Your task to perform on an android device: toggle location history Image 0: 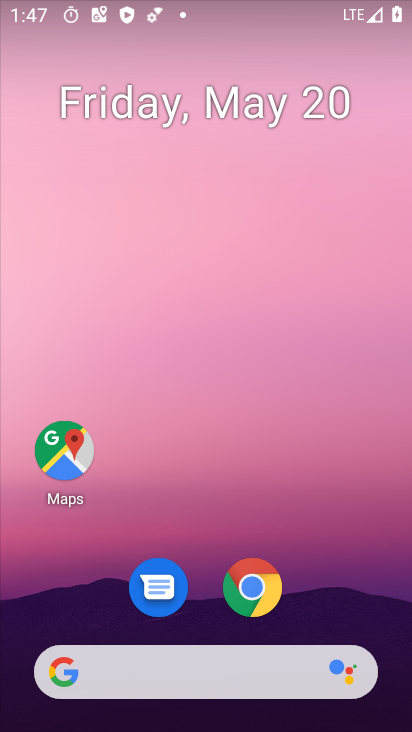
Step 0: drag from (360, 553) to (297, 99)
Your task to perform on an android device: toggle location history Image 1: 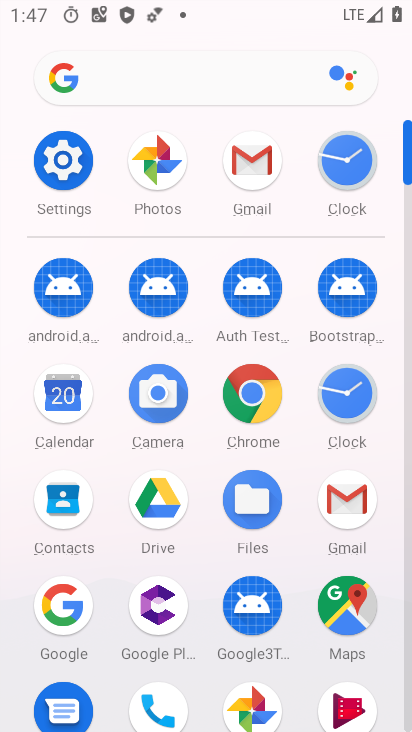
Step 1: click (72, 166)
Your task to perform on an android device: toggle location history Image 2: 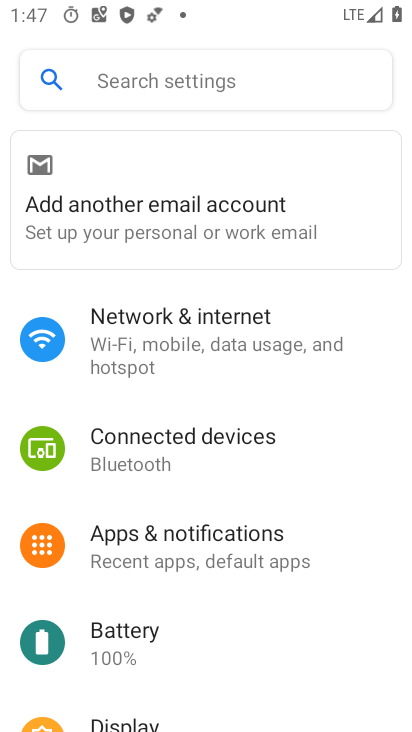
Step 2: drag from (143, 615) to (228, 211)
Your task to perform on an android device: toggle location history Image 3: 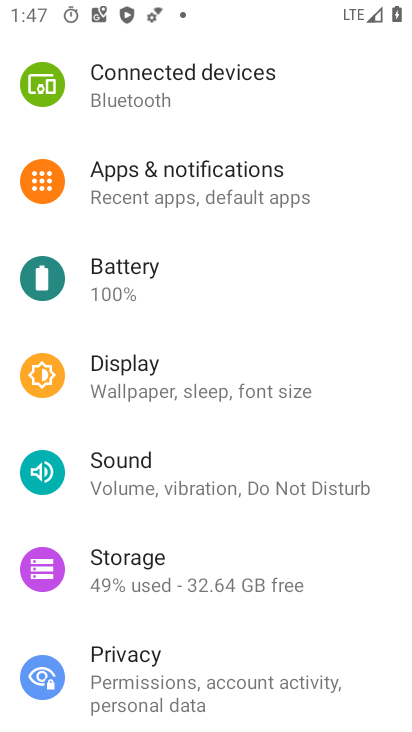
Step 3: drag from (206, 551) to (301, 152)
Your task to perform on an android device: toggle location history Image 4: 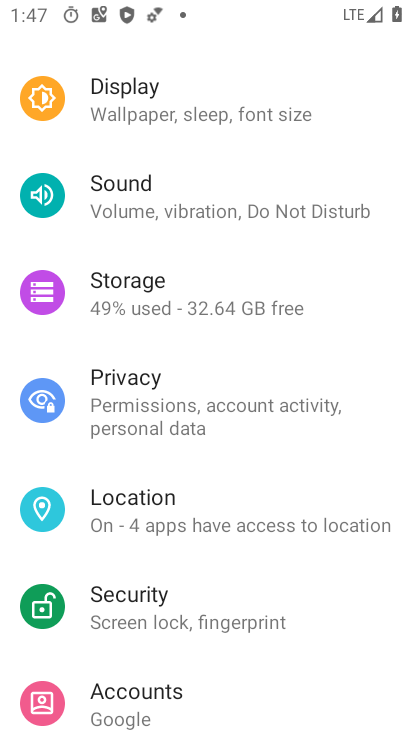
Step 4: click (156, 507)
Your task to perform on an android device: toggle location history Image 5: 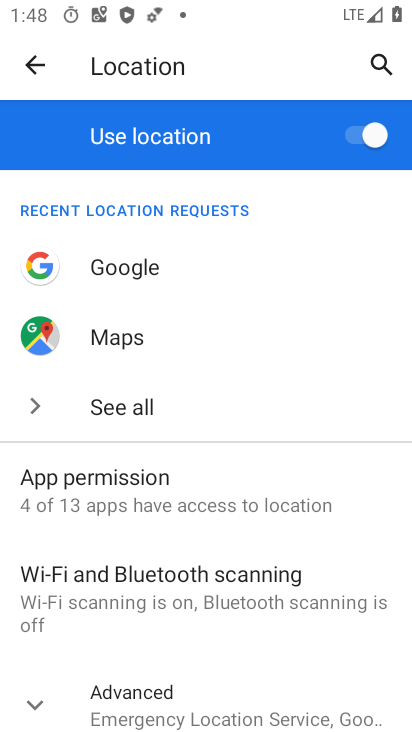
Step 5: drag from (142, 417) to (237, 39)
Your task to perform on an android device: toggle location history Image 6: 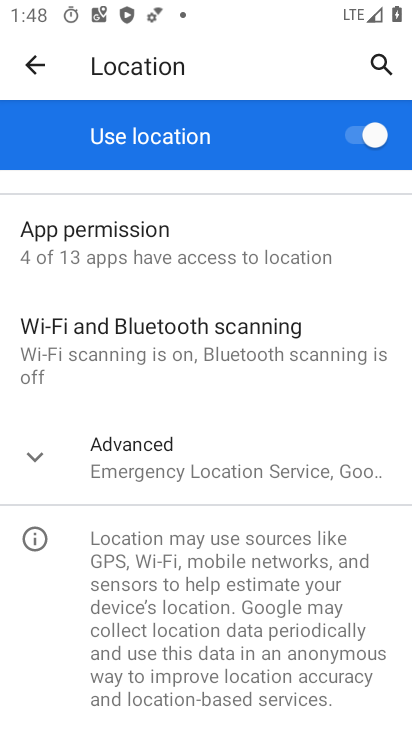
Step 6: click (169, 518)
Your task to perform on an android device: toggle location history Image 7: 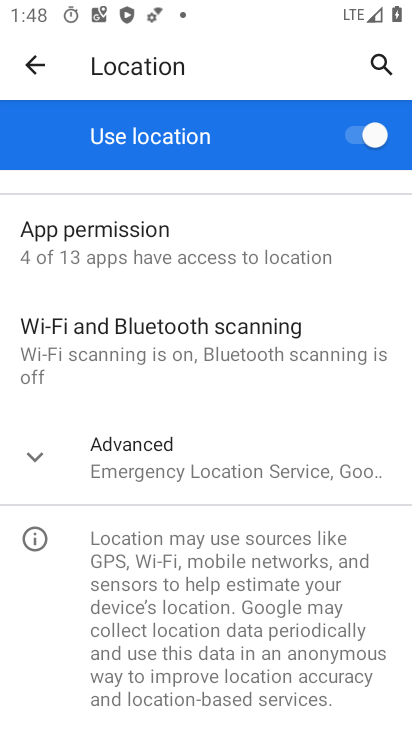
Step 7: click (147, 473)
Your task to perform on an android device: toggle location history Image 8: 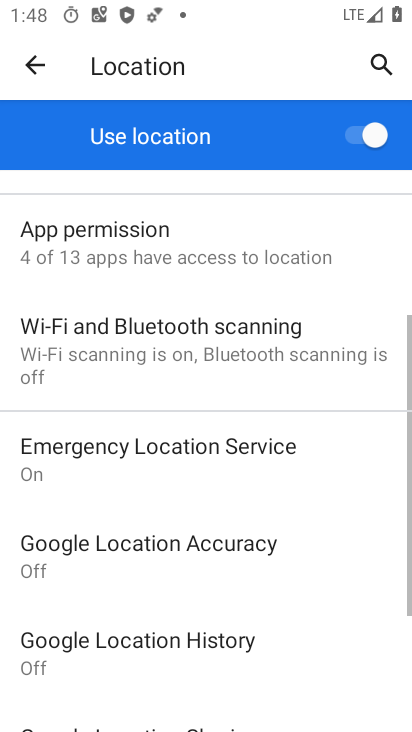
Step 8: drag from (175, 555) to (189, 261)
Your task to perform on an android device: toggle location history Image 9: 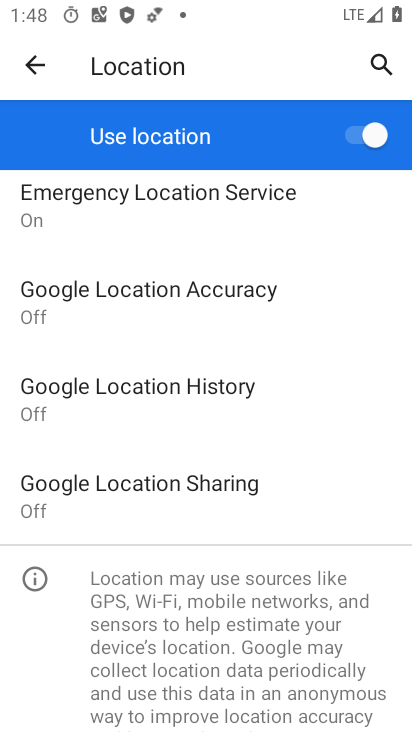
Step 9: click (188, 376)
Your task to perform on an android device: toggle location history Image 10: 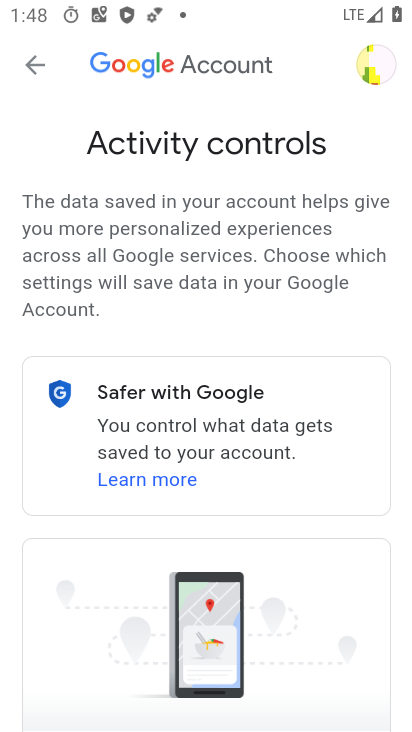
Step 10: drag from (83, 492) to (234, 53)
Your task to perform on an android device: toggle location history Image 11: 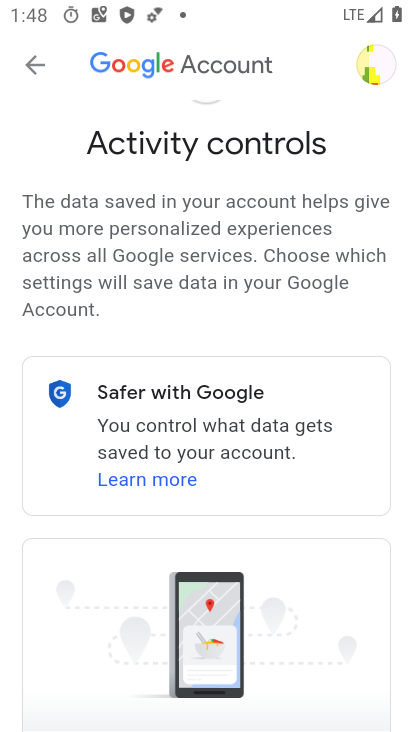
Step 11: drag from (291, 608) to (240, 127)
Your task to perform on an android device: toggle location history Image 12: 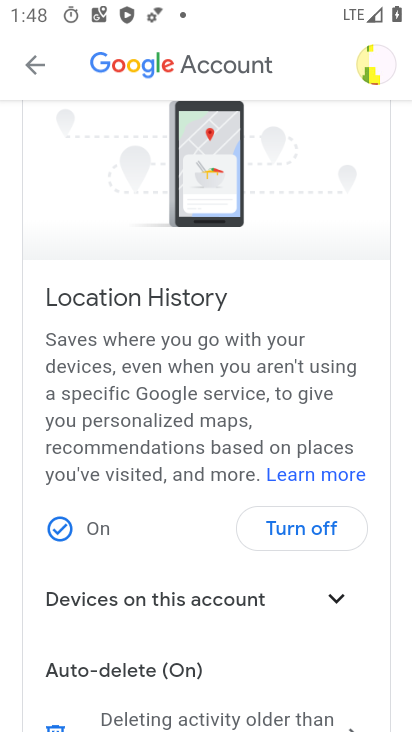
Step 12: click (304, 527)
Your task to perform on an android device: toggle location history Image 13: 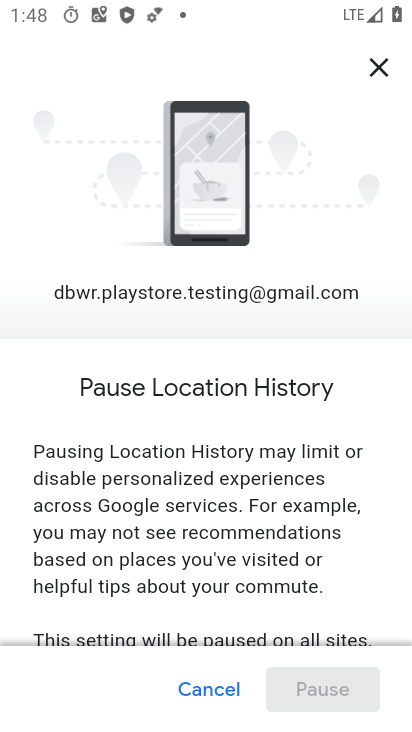
Step 13: drag from (268, 549) to (364, 86)
Your task to perform on an android device: toggle location history Image 14: 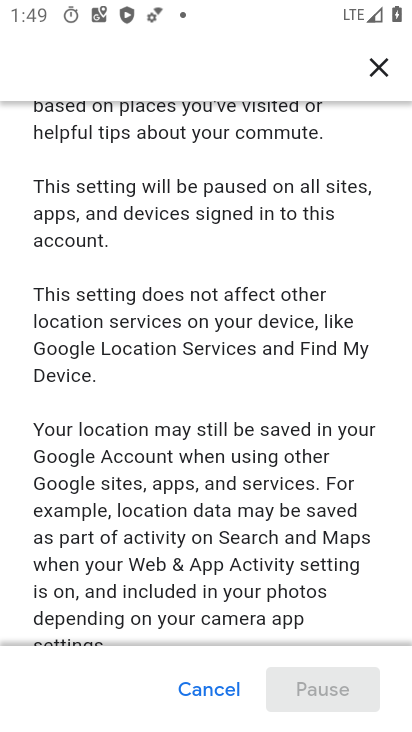
Step 14: drag from (265, 478) to (395, 29)
Your task to perform on an android device: toggle location history Image 15: 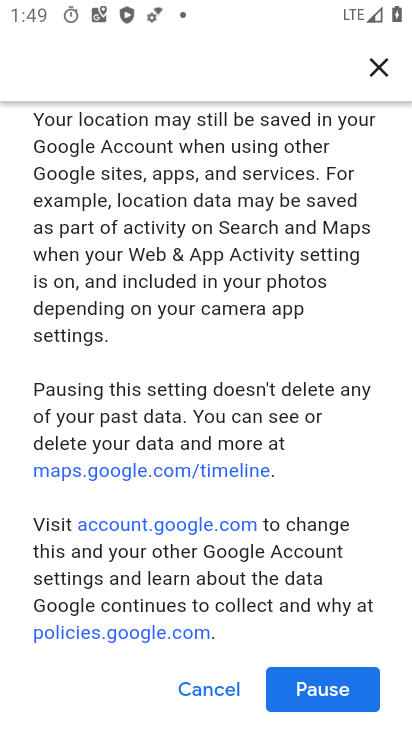
Step 15: click (317, 701)
Your task to perform on an android device: toggle location history Image 16: 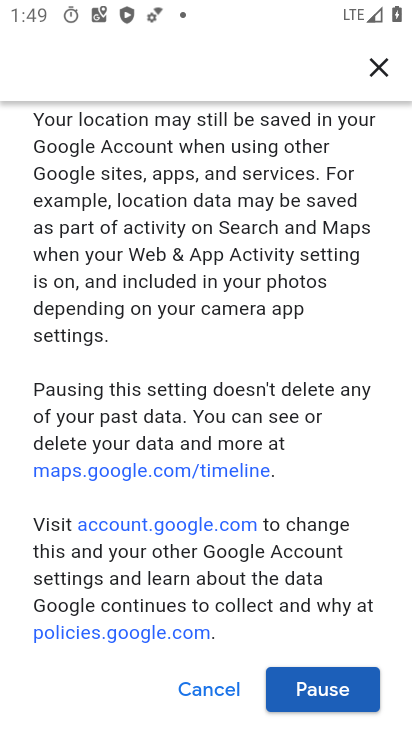
Step 16: click (317, 701)
Your task to perform on an android device: toggle location history Image 17: 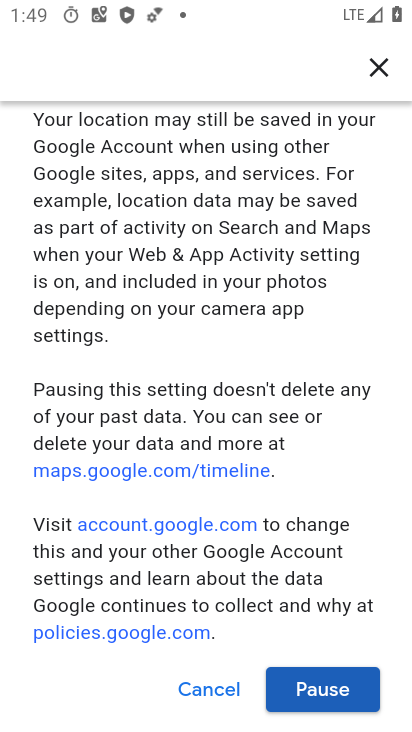
Step 17: click (322, 689)
Your task to perform on an android device: toggle location history Image 18: 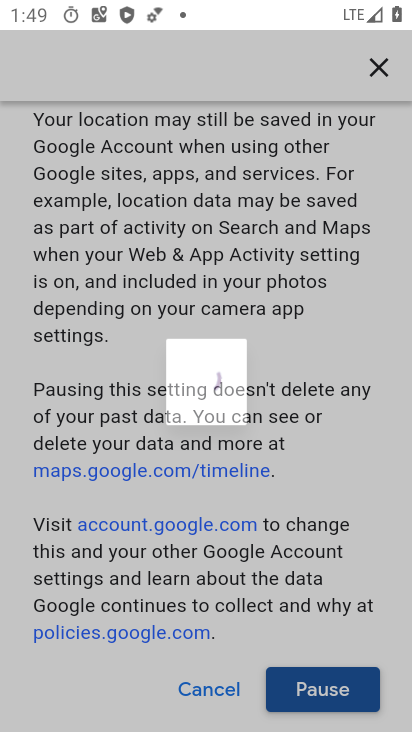
Step 18: click (323, 692)
Your task to perform on an android device: toggle location history Image 19: 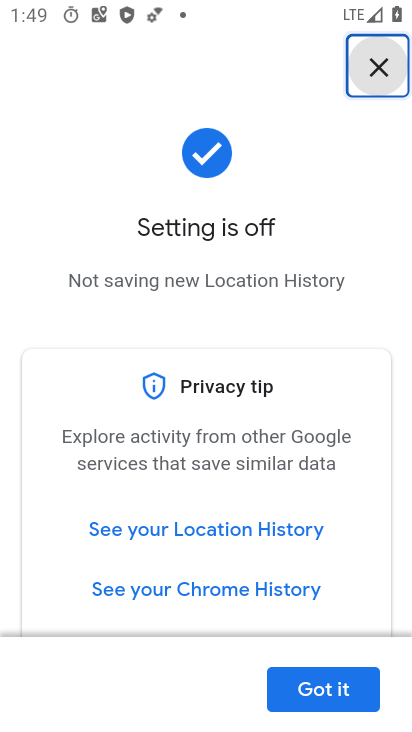
Step 19: task complete